Your task to perform on an android device: toggle notification dots Image 0: 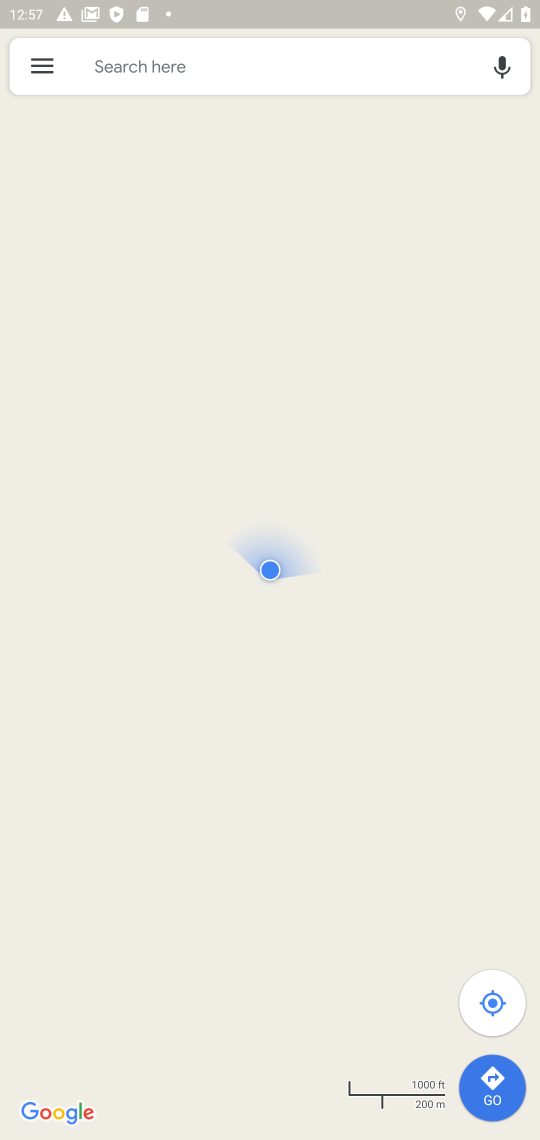
Step 0: press home button
Your task to perform on an android device: toggle notification dots Image 1: 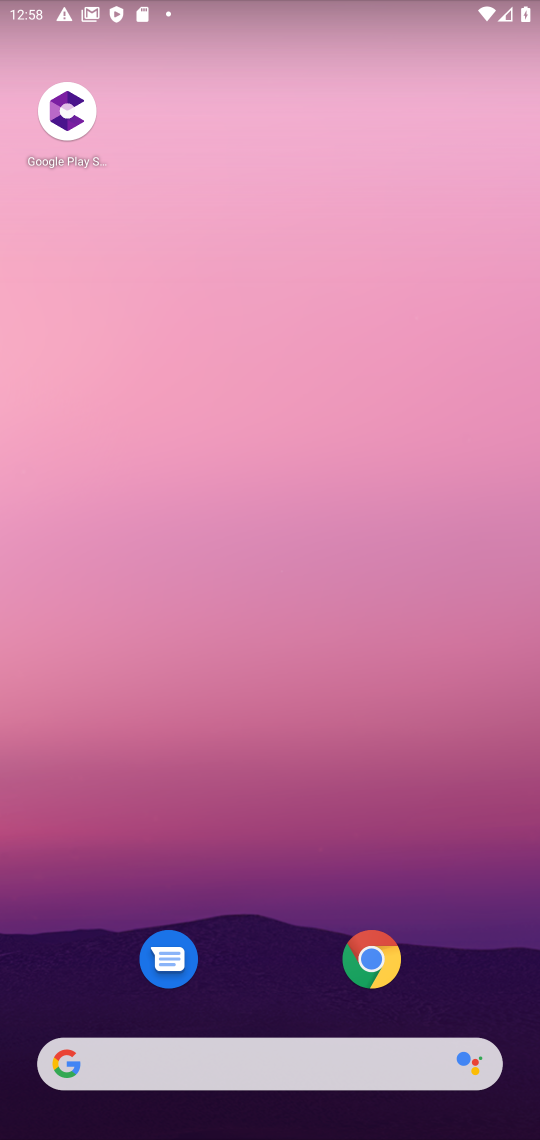
Step 1: drag from (278, 1093) to (481, 45)
Your task to perform on an android device: toggle notification dots Image 2: 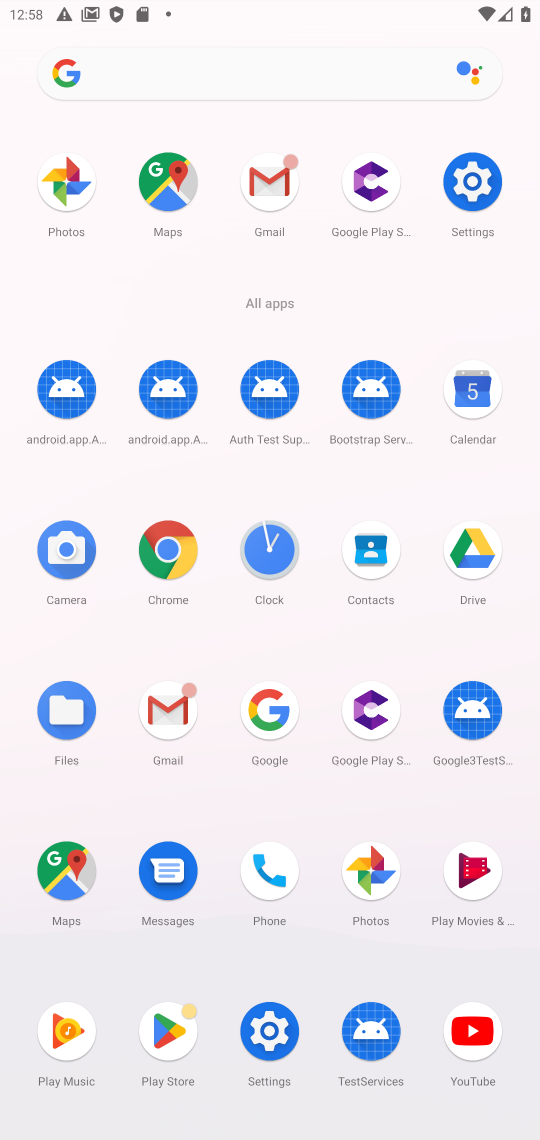
Step 2: click (511, 188)
Your task to perform on an android device: toggle notification dots Image 3: 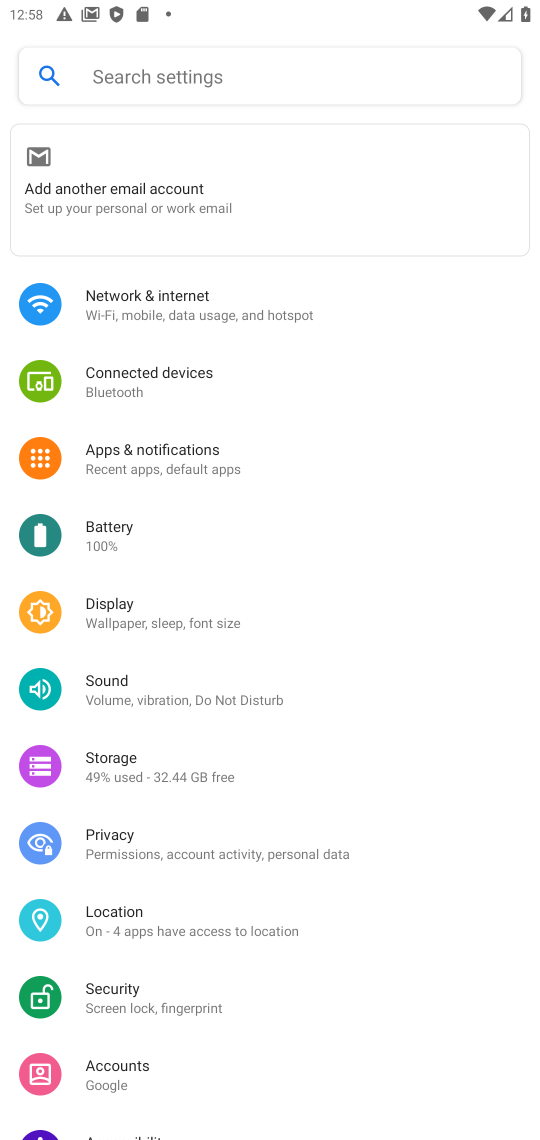
Step 3: click (261, 473)
Your task to perform on an android device: toggle notification dots Image 4: 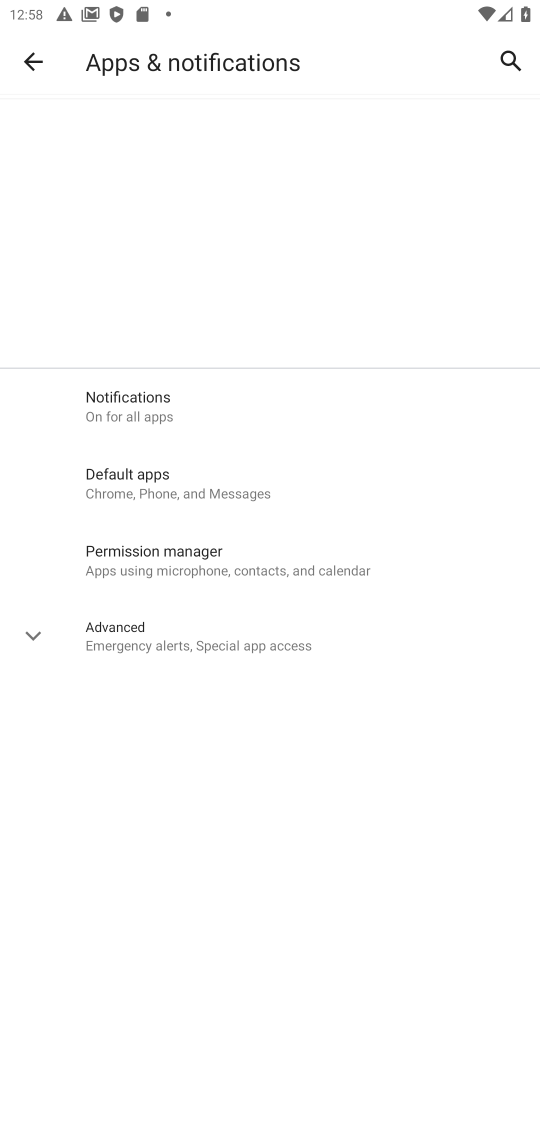
Step 4: click (150, 386)
Your task to perform on an android device: toggle notification dots Image 5: 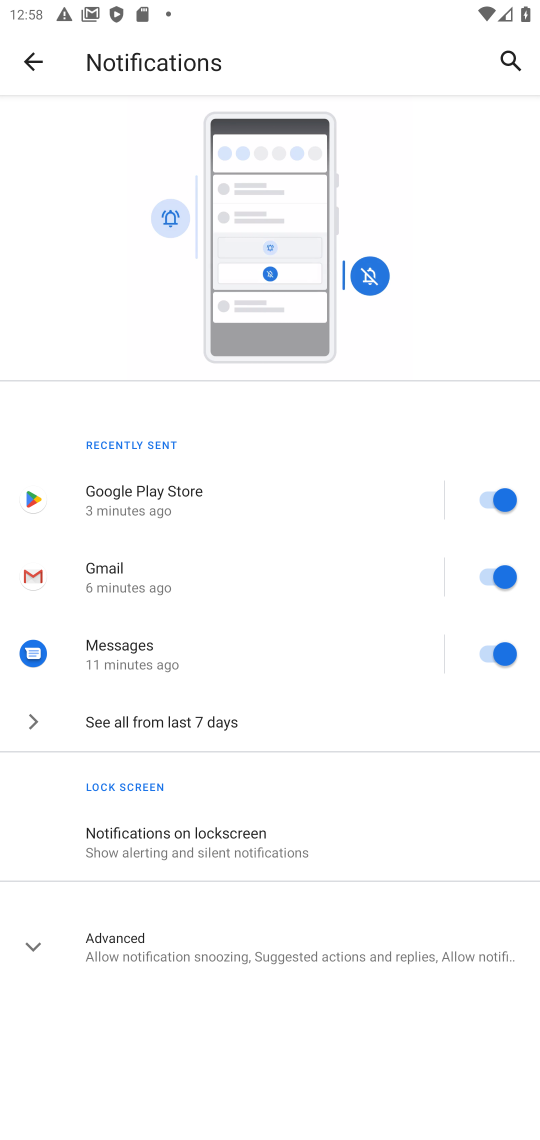
Step 5: click (171, 952)
Your task to perform on an android device: toggle notification dots Image 6: 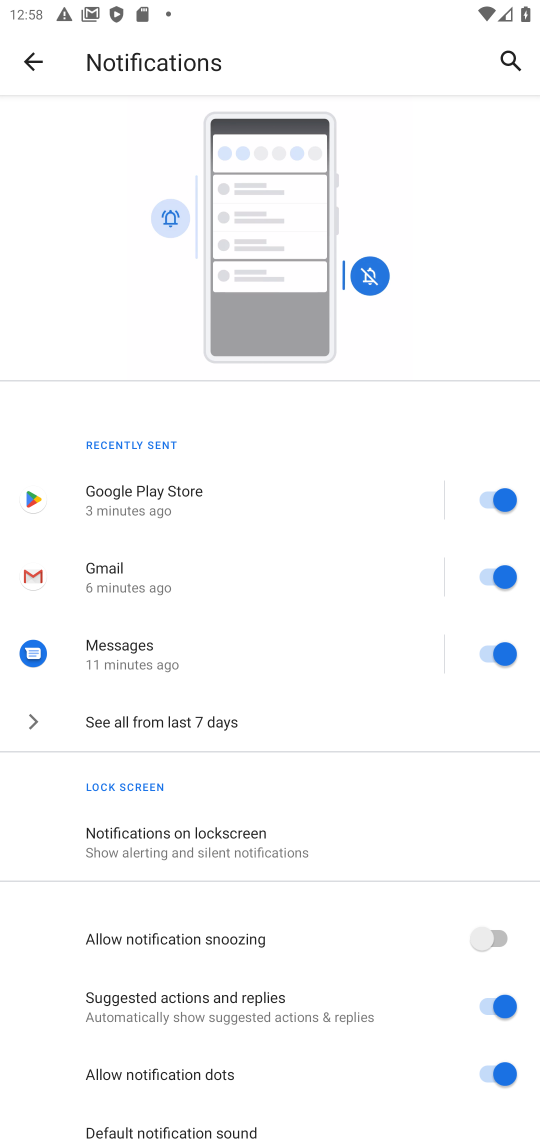
Step 6: click (515, 1065)
Your task to perform on an android device: toggle notification dots Image 7: 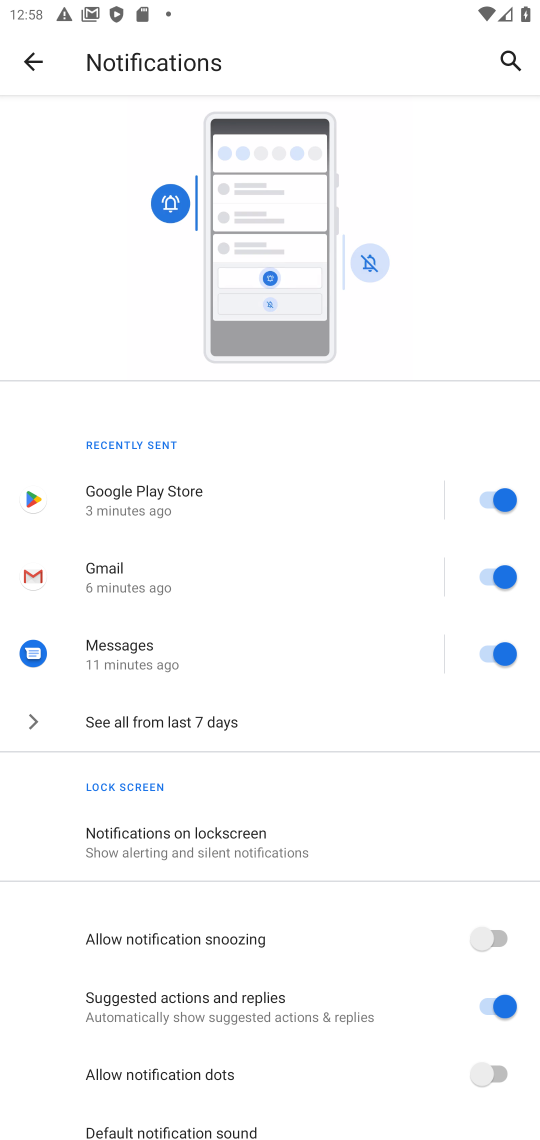
Step 7: task complete